Your task to perform on an android device: Empty the shopping cart on ebay.com. Add "usb-c" to the cart on ebay.com Image 0: 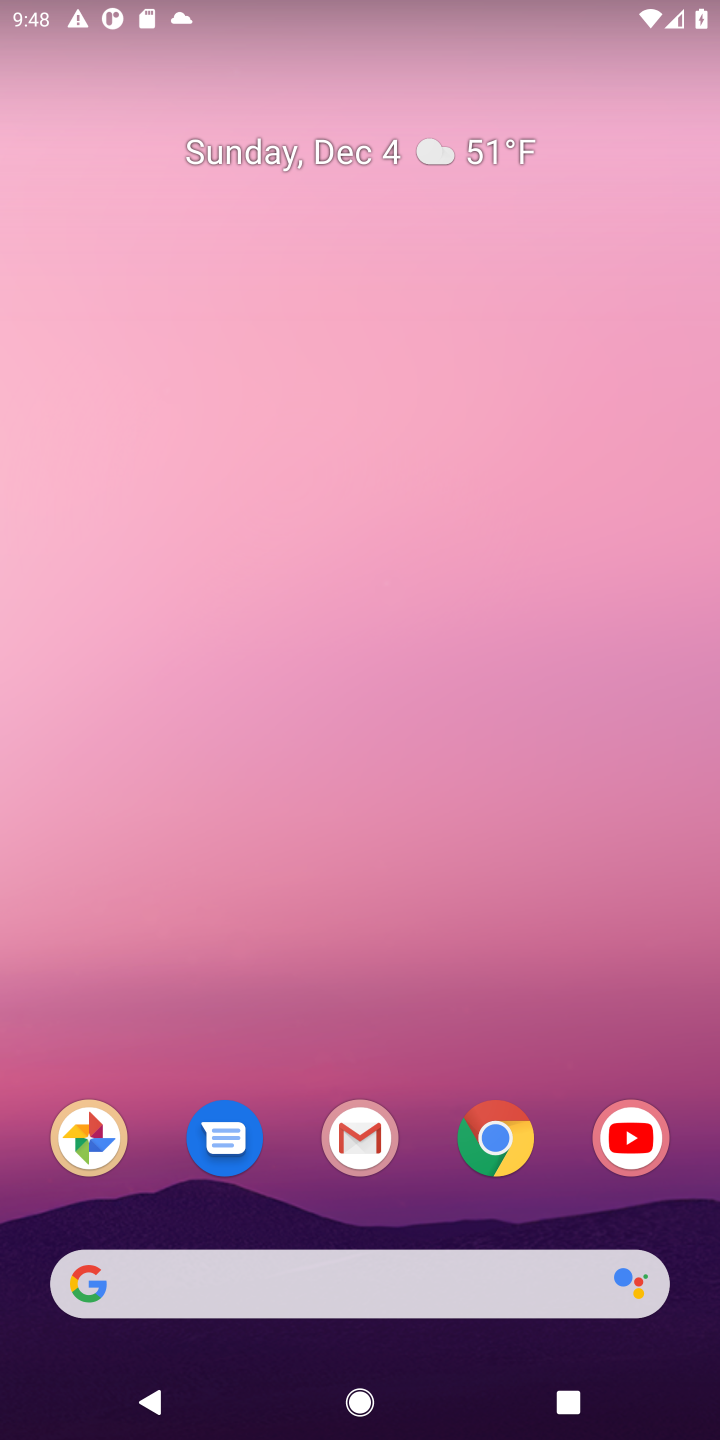
Step 0: click (487, 1143)
Your task to perform on an android device: Empty the shopping cart on ebay.com. Add "usb-c" to the cart on ebay.com Image 1: 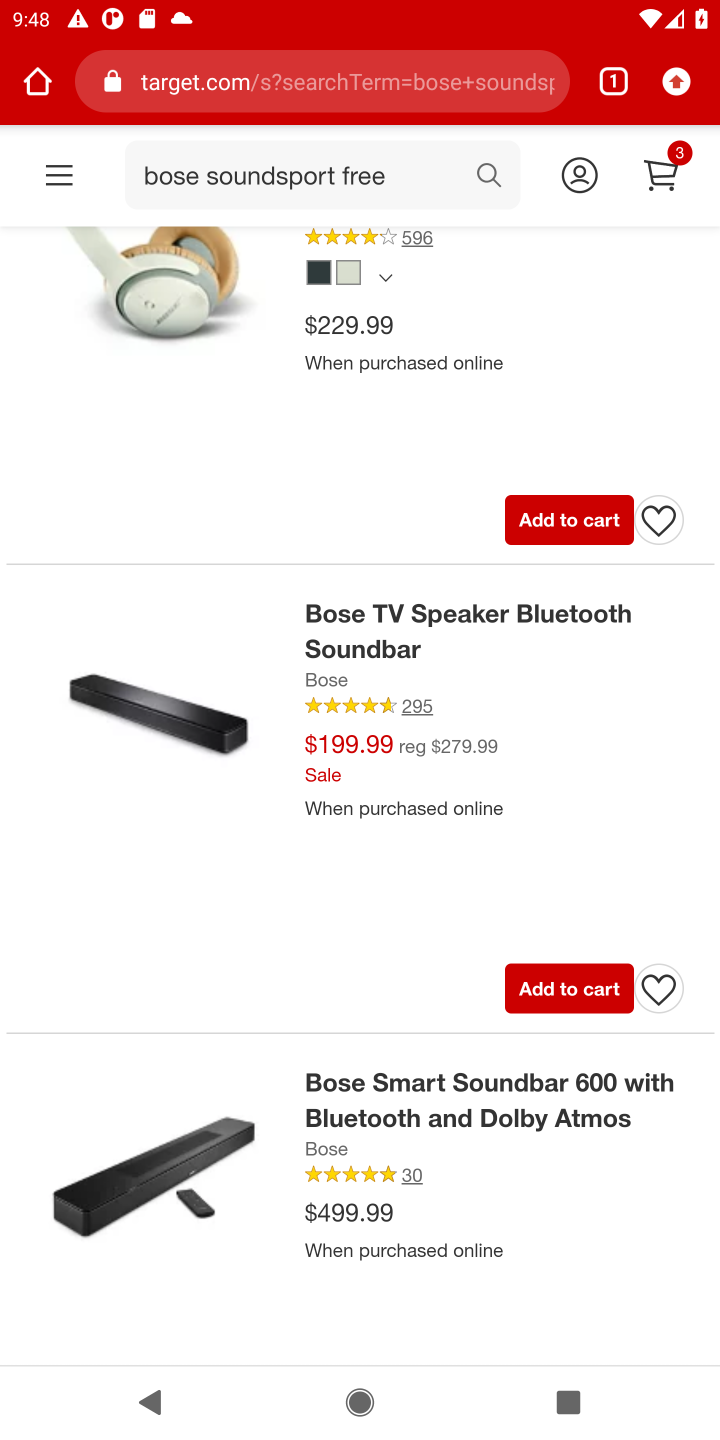
Step 1: click (373, 90)
Your task to perform on an android device: Empty the shopping cart on ebay.com. Add "usb-c" to the cart on ebay.com Image 2: 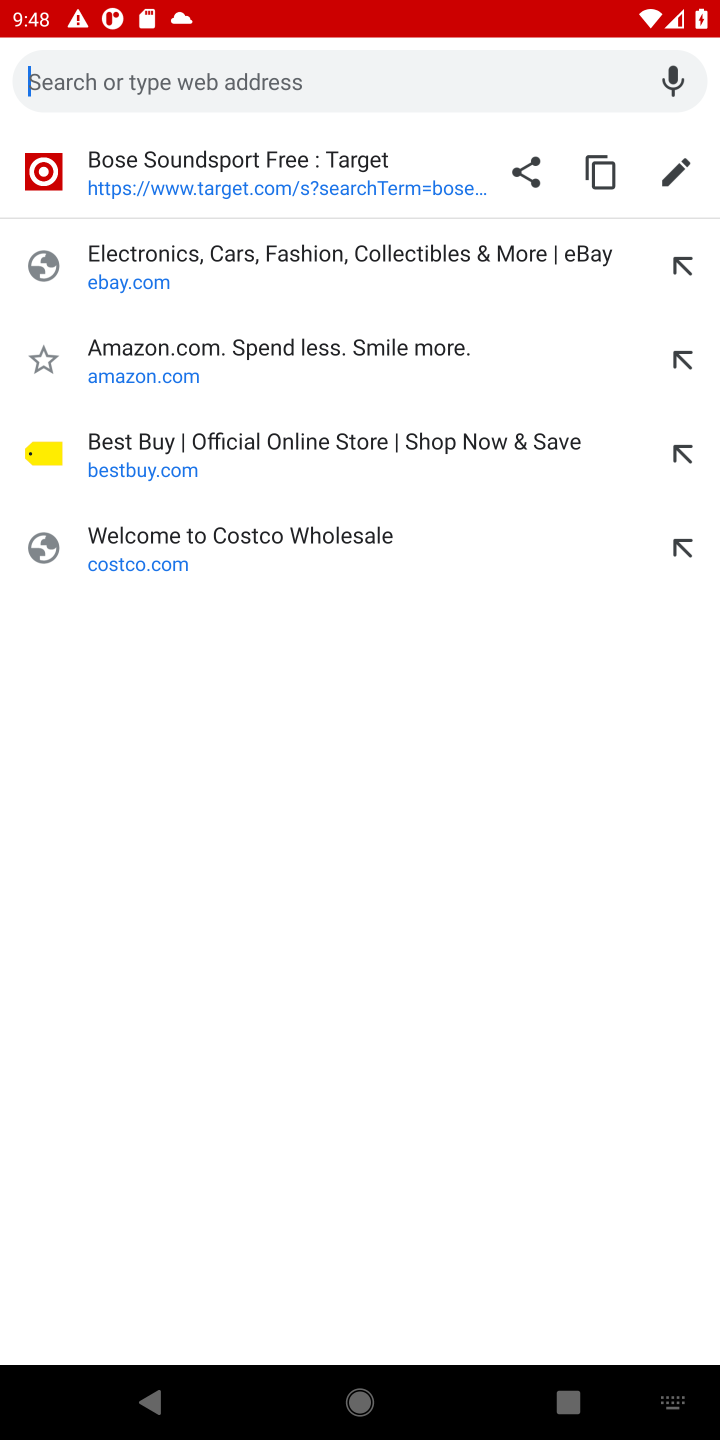
Step 2: press enter
Your task to perform on an android device: Empty the shopping cart on ebay.com. Add "usb-c" to the cart on ebay.com Image 3: 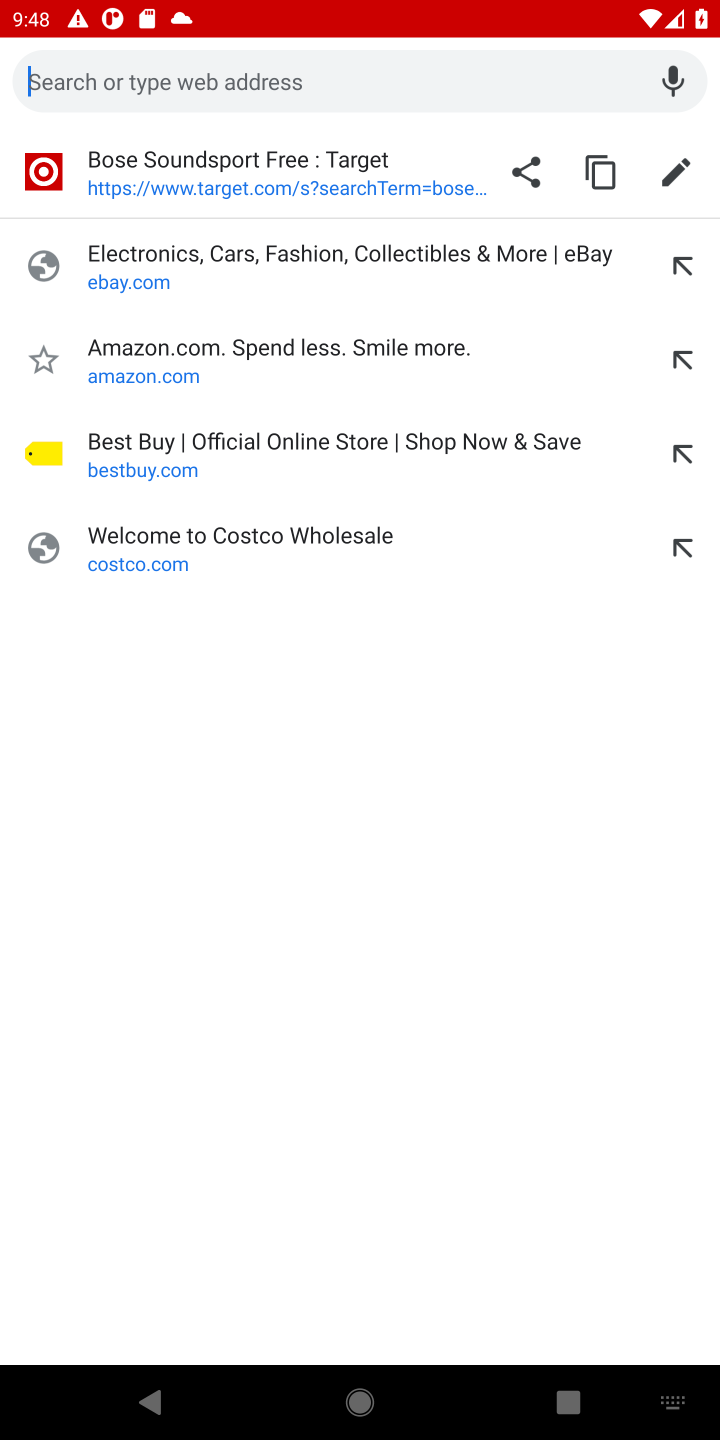
Step 3: type "ebay.com"
Your task to perform on an android device: Empty the shopping cart on ebay.com. Add "usb-c" to the cart on ebay.com Image 4: 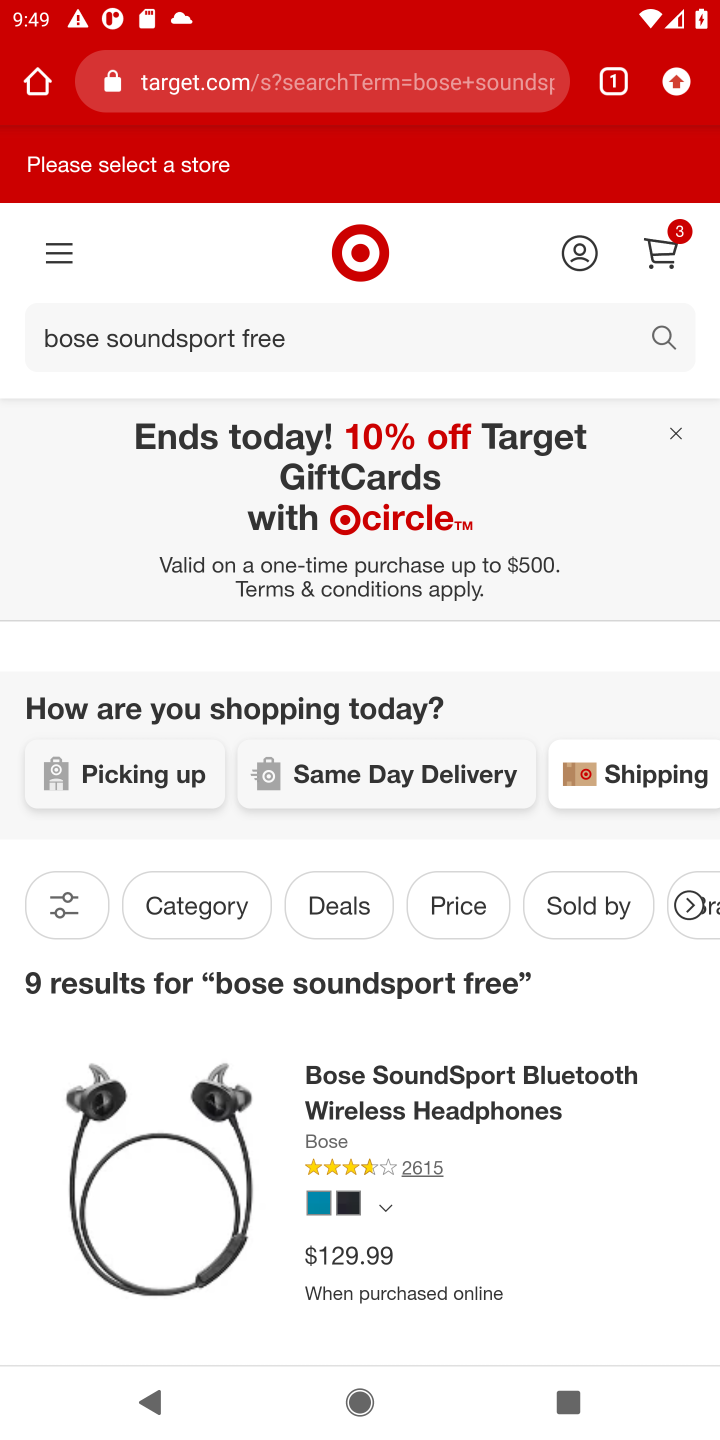
Step 4: click (374, 78)
Your task to perform on an android device: Empty the shopping cart on ebay.com. Add "usb-c" to the cart on ebay.com Image 5: 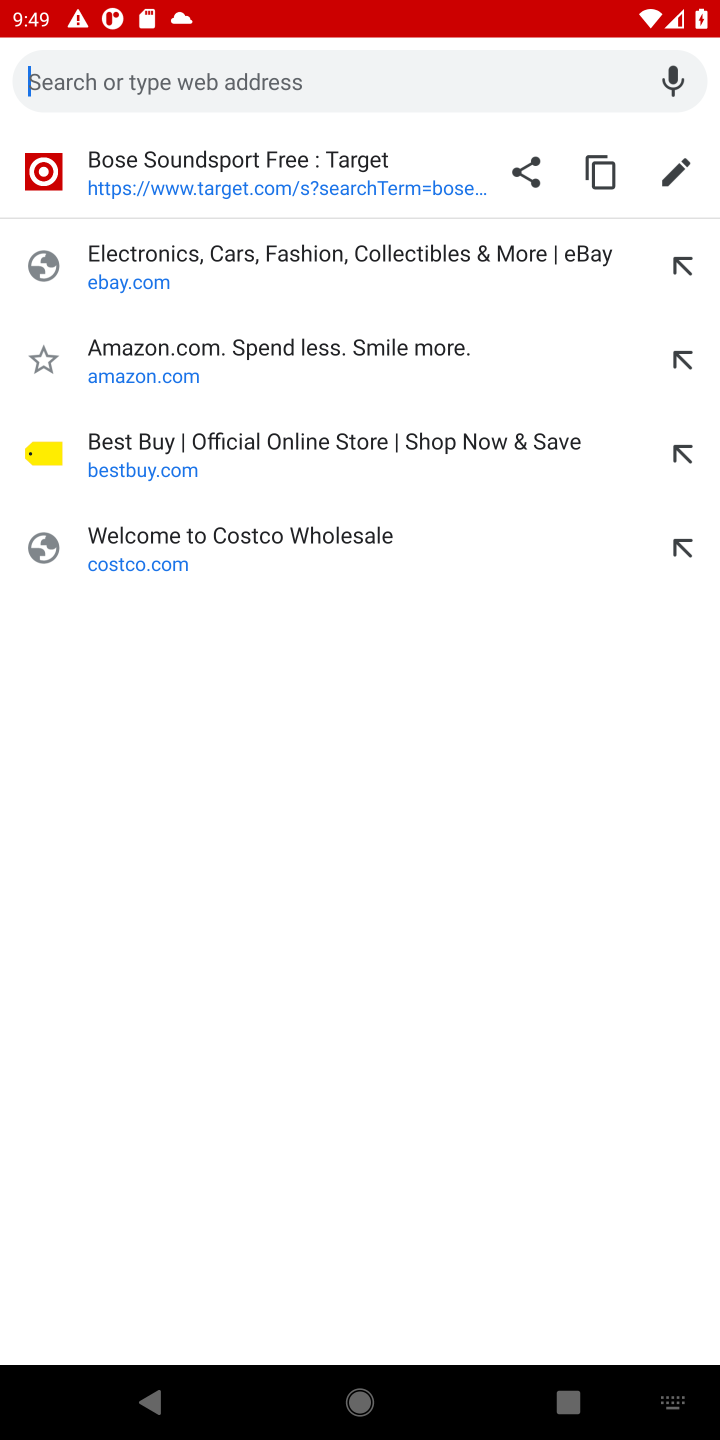
Step 5: click (318, 258)
Your task to perform on an android device: Empty the shopping cart on ebay.com. Add "usb-c" to the cart on ebay.com Image 6: 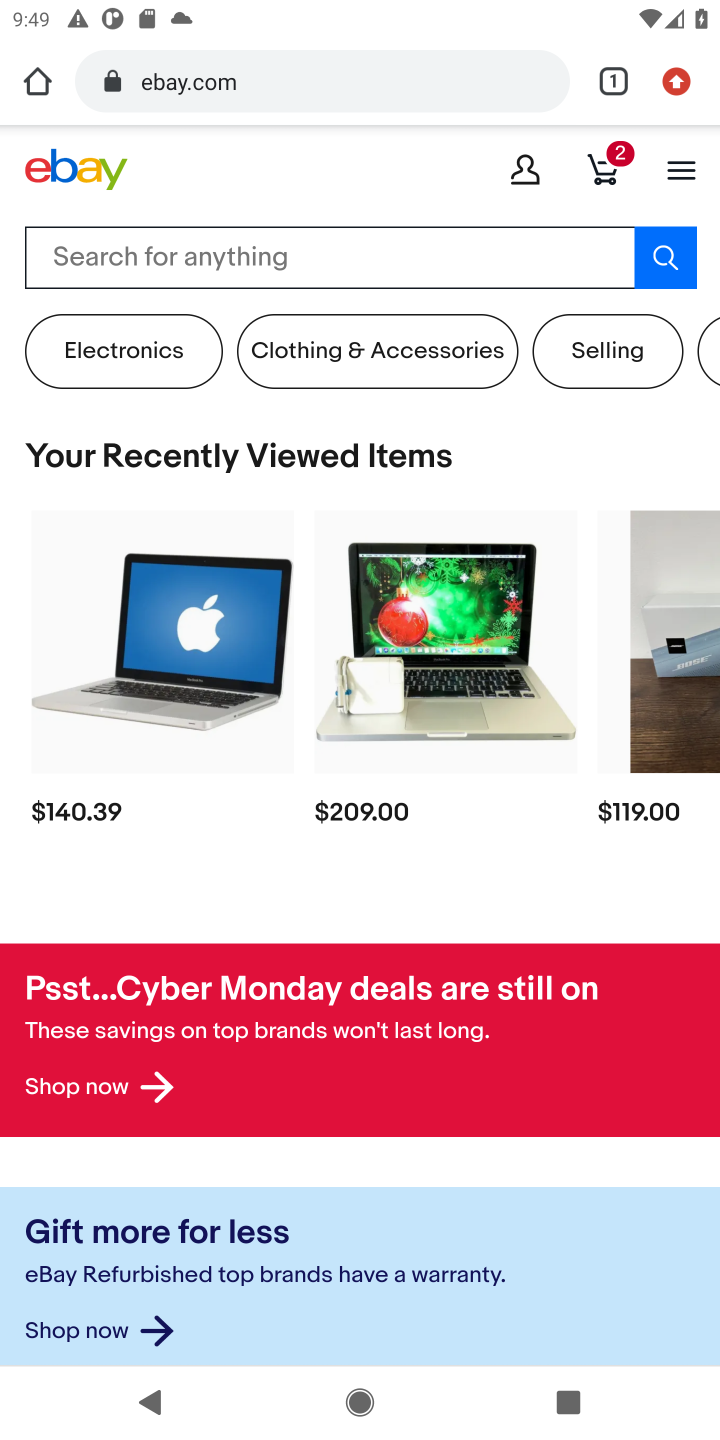
Step 6: click (609, 177)
Your task to perform on an android device: Empty the shopping cart on ebay.com. Add "usb-c" to the cart on ebay.com Image 7: 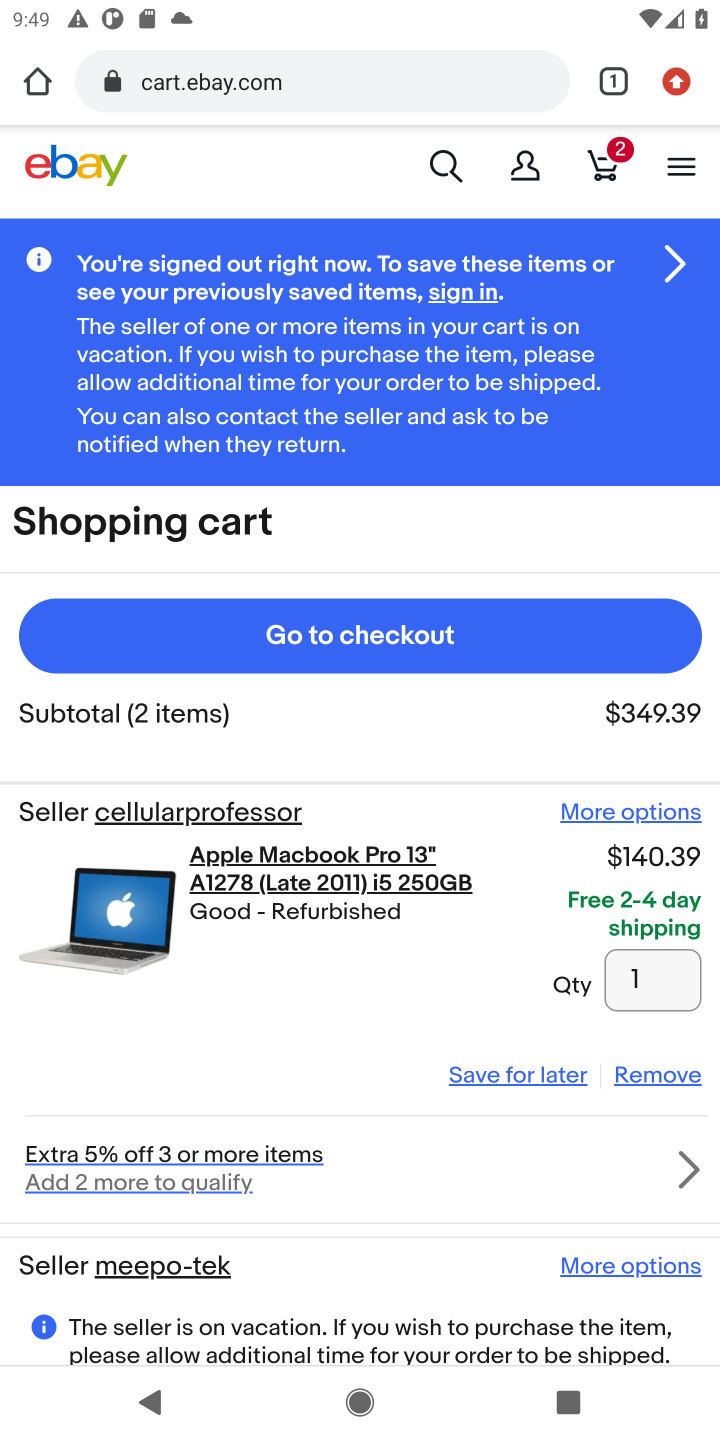
Step 7: click (667, 1078)
Your task to perform on an android device: Empty the shopping cart on ebay.com. Add "usb-c" to the cart on ebay.com Image 8: 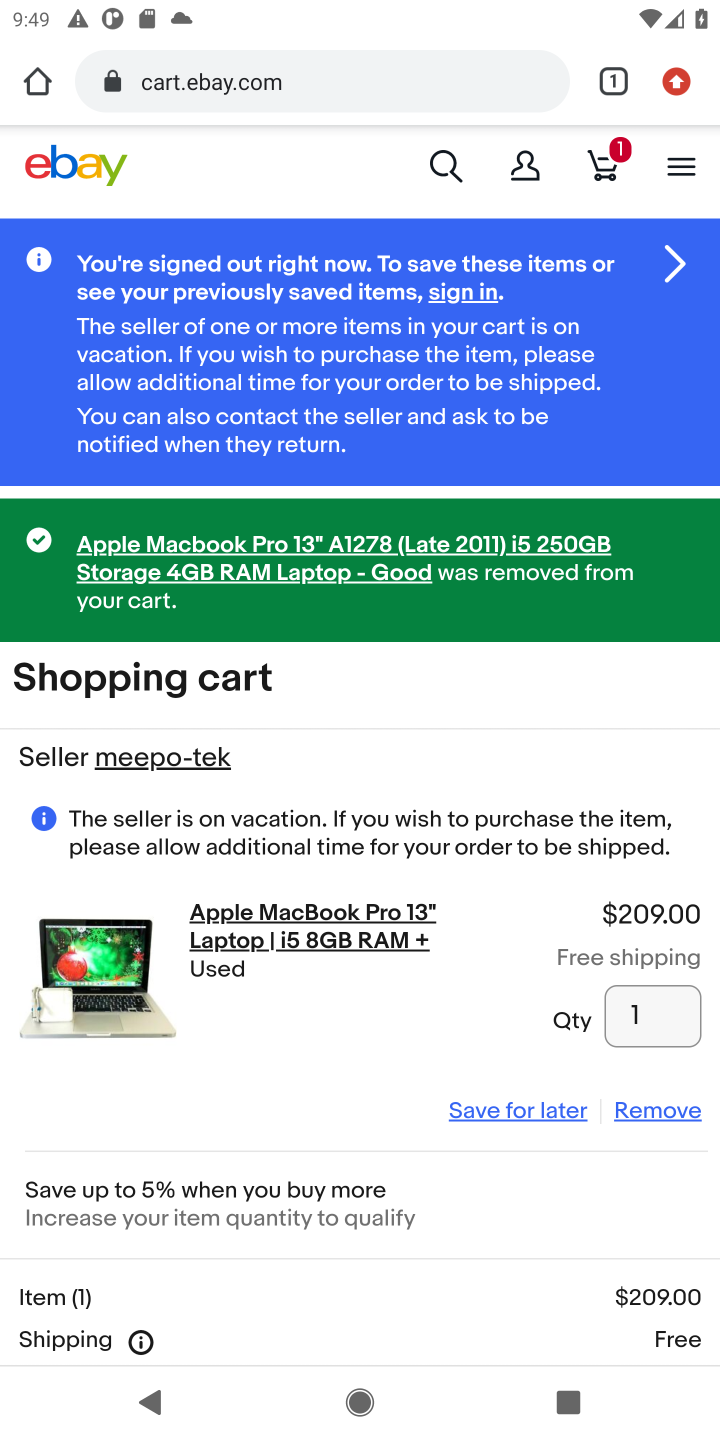
Step 8: click (662, 1119)
Your task to perform on an android device: Empty the shopping cart on ebay.com. Add "usb-c" to the cart on ebay.com Image 9: 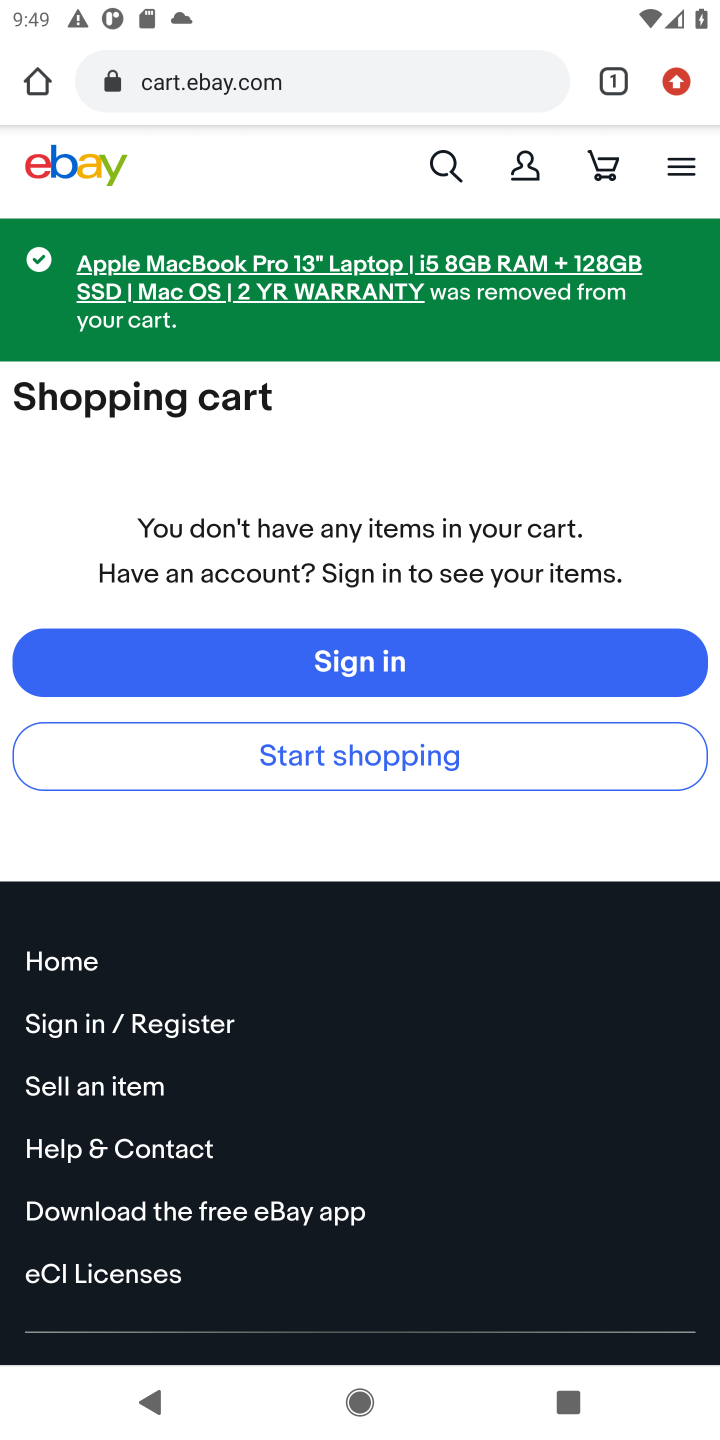
Step 9: click (448, 160)
Your task to perform on an android device: Empty the shopping cart on ebay.com. Add "usb-c" to the cart on ebay.com Image 10: 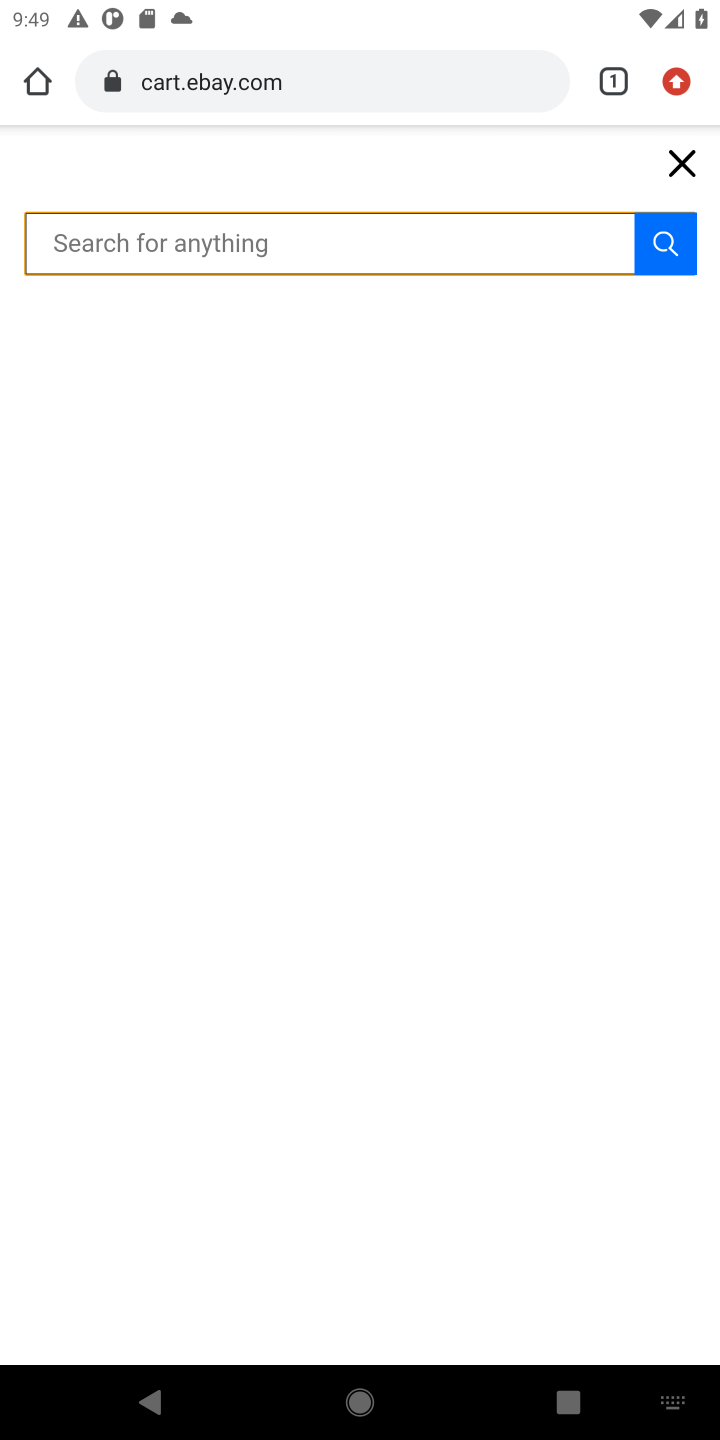
Step 10: type "usb-c"
Your task to perform on an android device: Empty the shopping cart on ebay.com. Add "usb-c" to the cart on ebay.com Image 11: 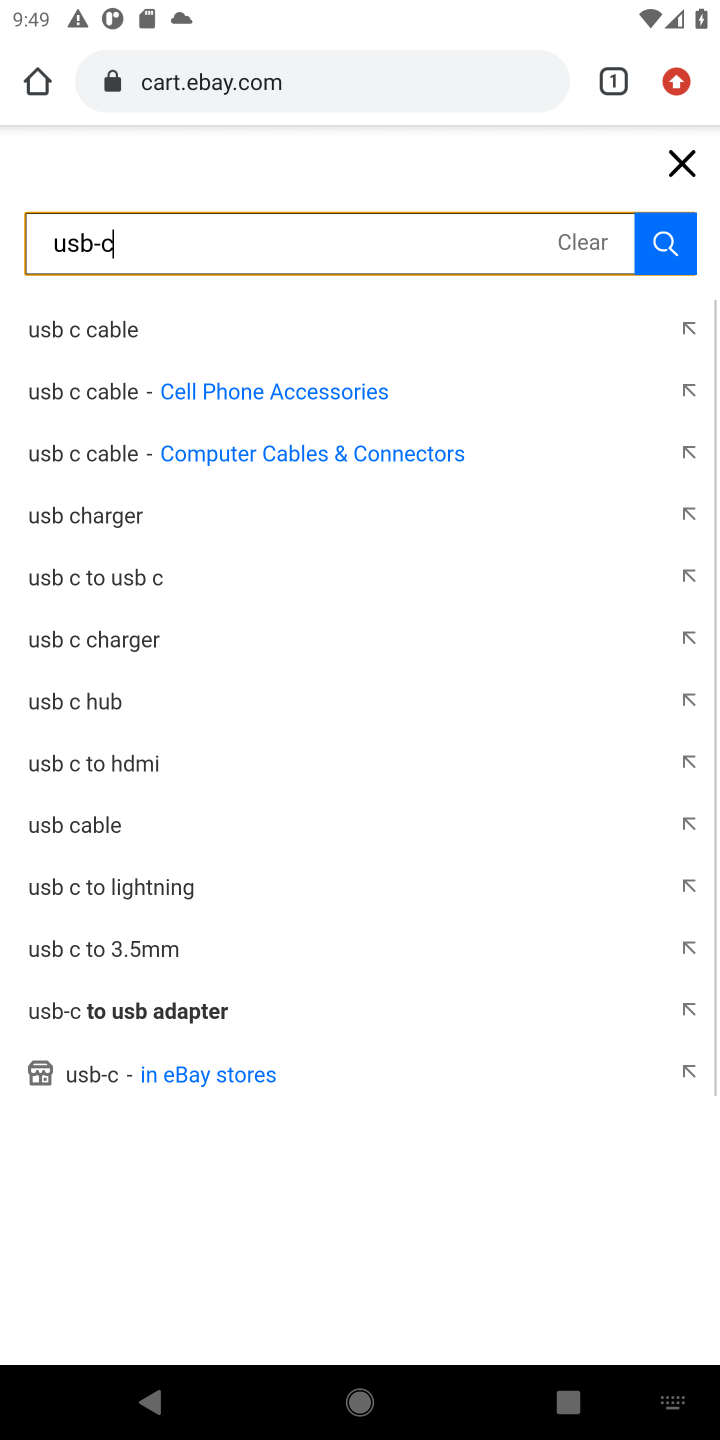
Step 11: press enter
Your task to perform on an android device: Empty the shopping cart on ebay.com. Add "usb-c" to the cart on ebay.com Image 12: 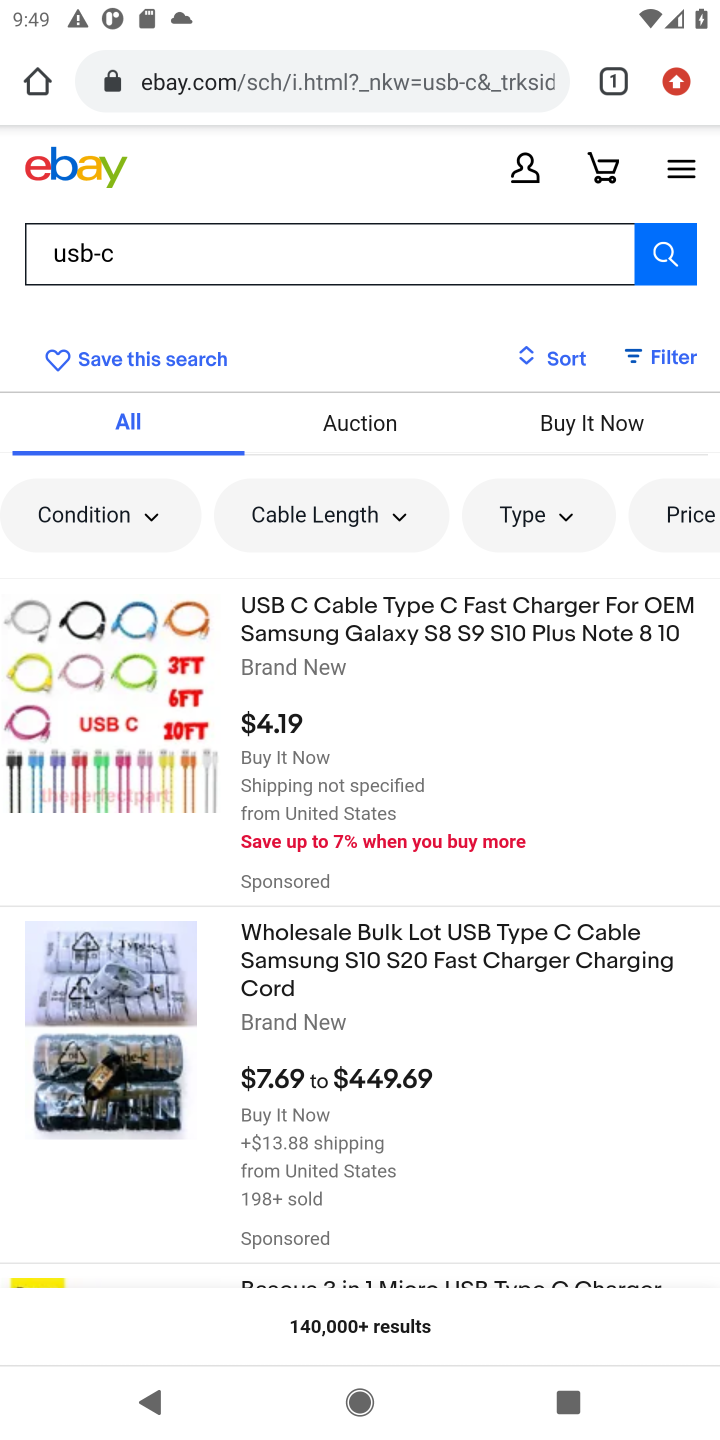
Step 12: click (104, 1015)
Your task to perform on an android device: Empty the shopping cart on ebay.com. Add "usb-c" to the cart on ebay.com Image 13: 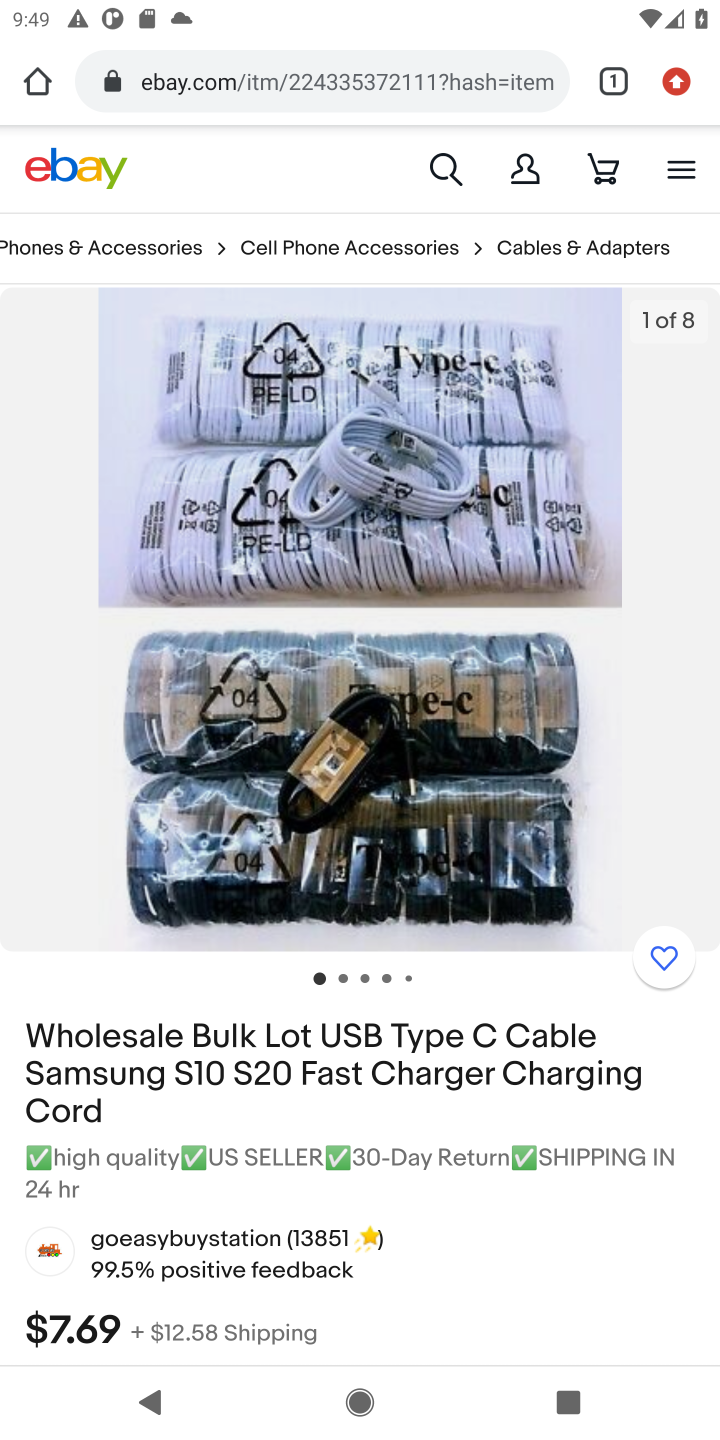
Step 13: drag from (660, 1156) to (646, 220)
Your task to perform on an android device: Empty the shopping cart on ebay.com. Add "usb-c" to the cart on ebay.com Image 14: 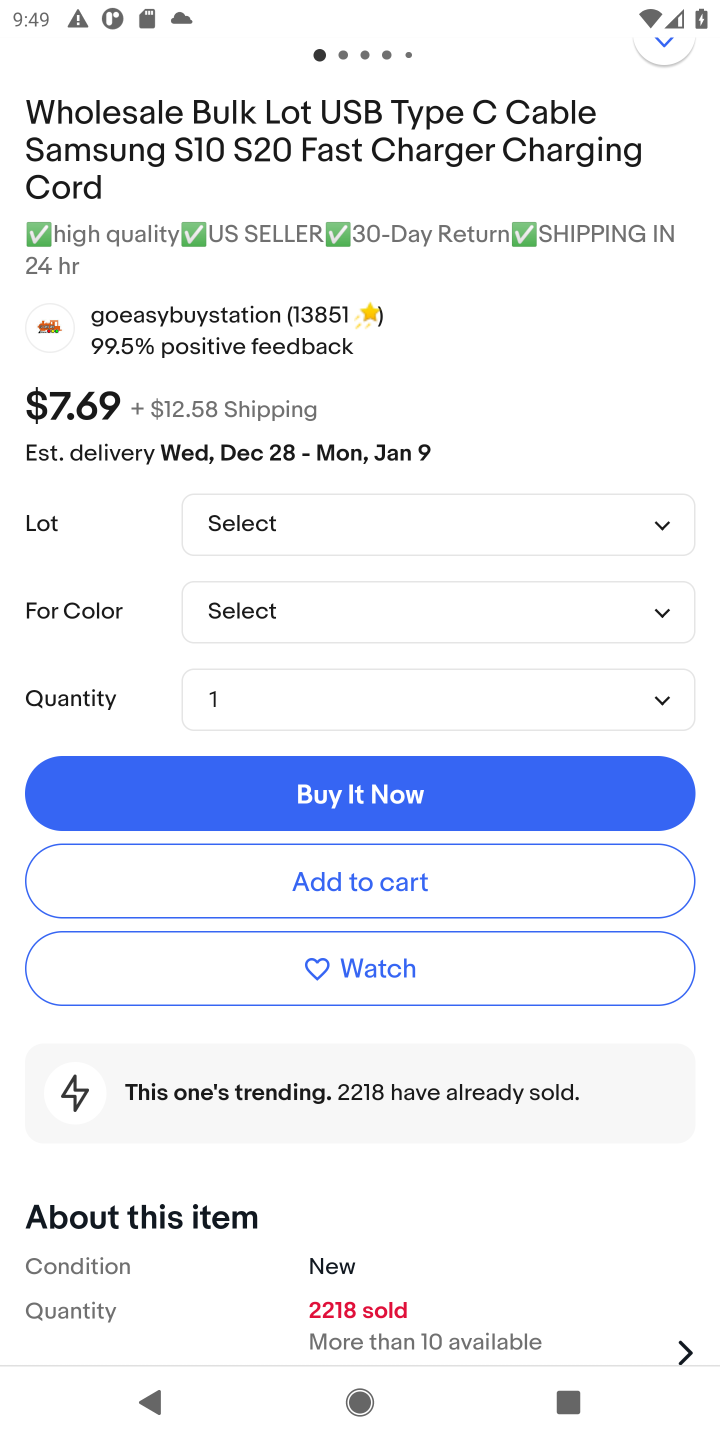
Step 14: click (368, 871)
Your task to perform on an android device: Empty the shopping cart on ebay.com. Add "usb-c" to the cart on ebay.com Image 15: 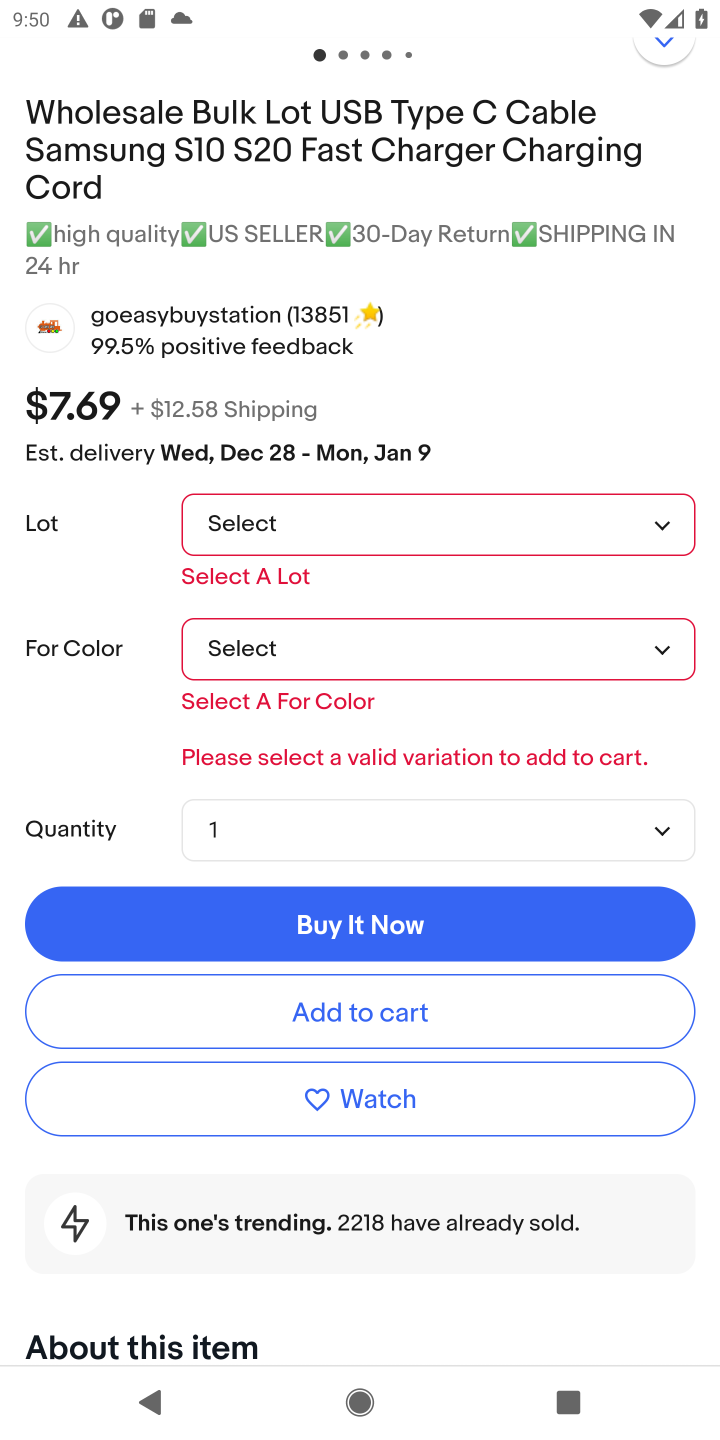
Step 15: press back button
Your task to perform on an android device: Empty the shopping cart on ebay.com. Add "usb-c" to the cart on ebay.com Image 16: 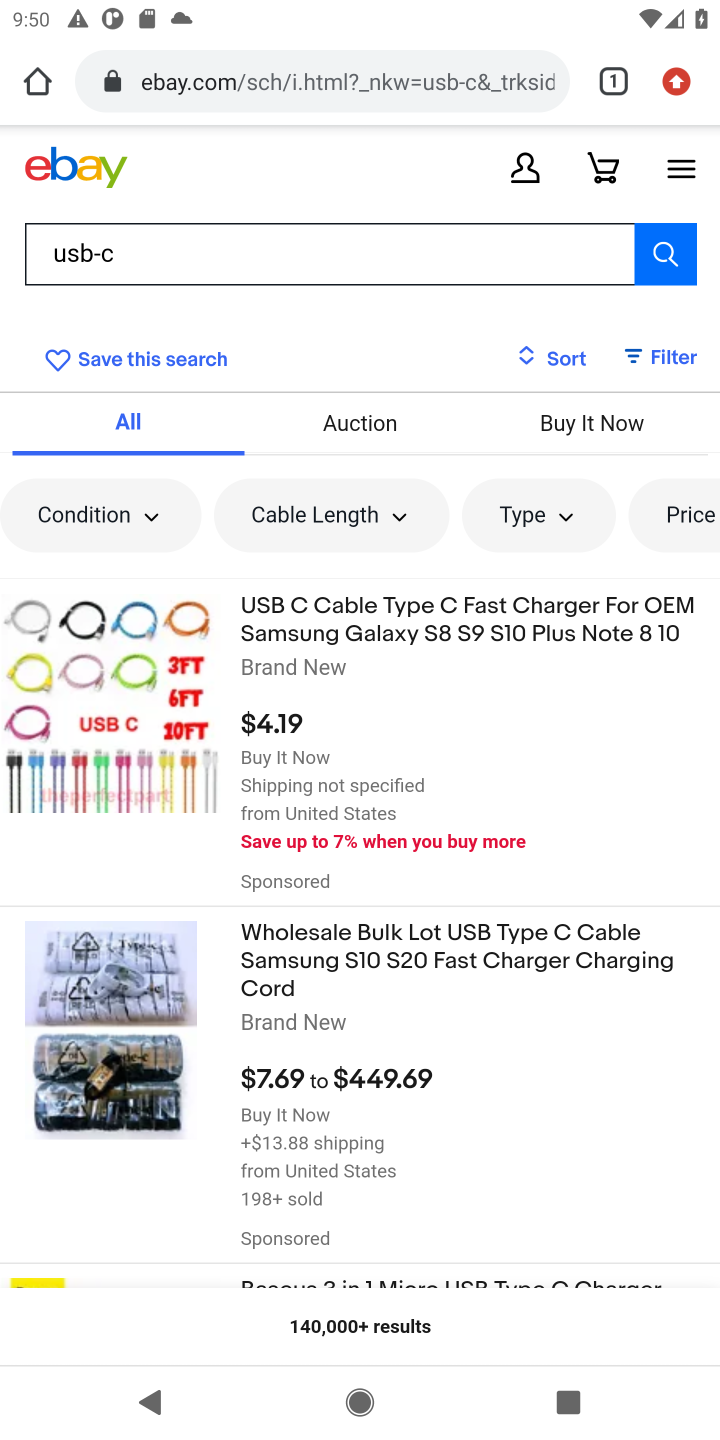
Step 16: drag from (443, 966) to (427, 457)
Your task to perform on an android device: Empty the shopping cart on ebay.com. Add "usb-c" to the cart on ebay.com Image 17: 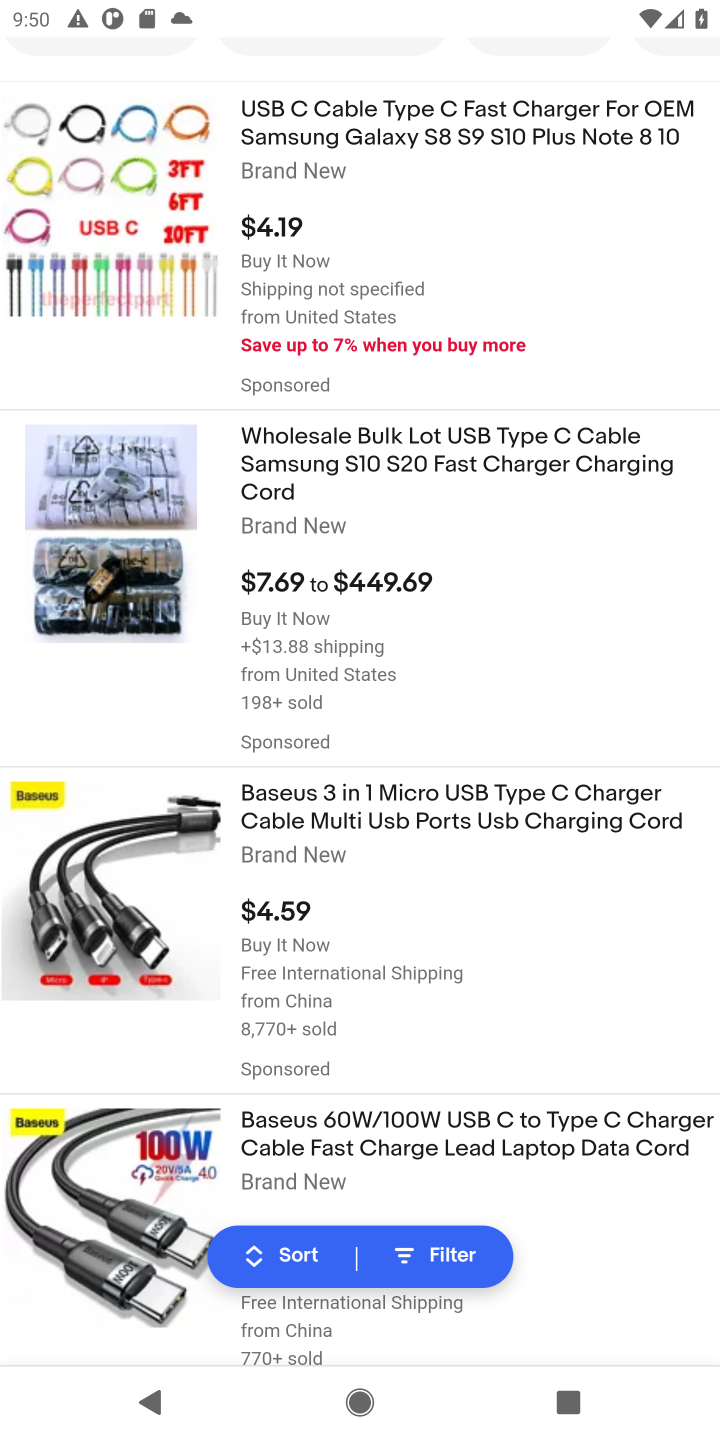
Step 17: click (85, 881)
Your task to perform on an android device: Empty the shopping cart on ebay.com. Add "usb-c" to the cart on ebay.com Image 18: 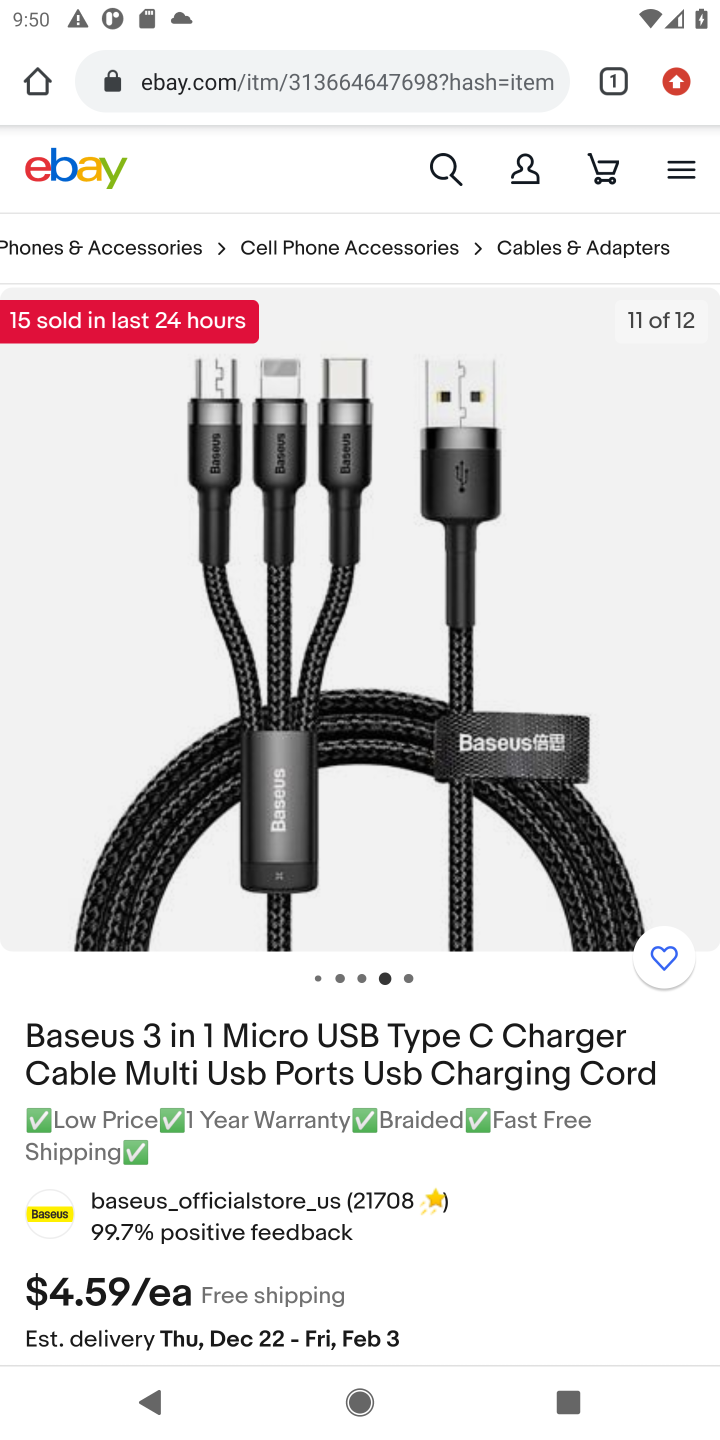
Step 18: drag from (548, 1226) to (506, 733)
Your task to perform on an android device: Empty the shopping cart on ebay.com. Add "usb-c" to the cart on ebay.com Image 19: 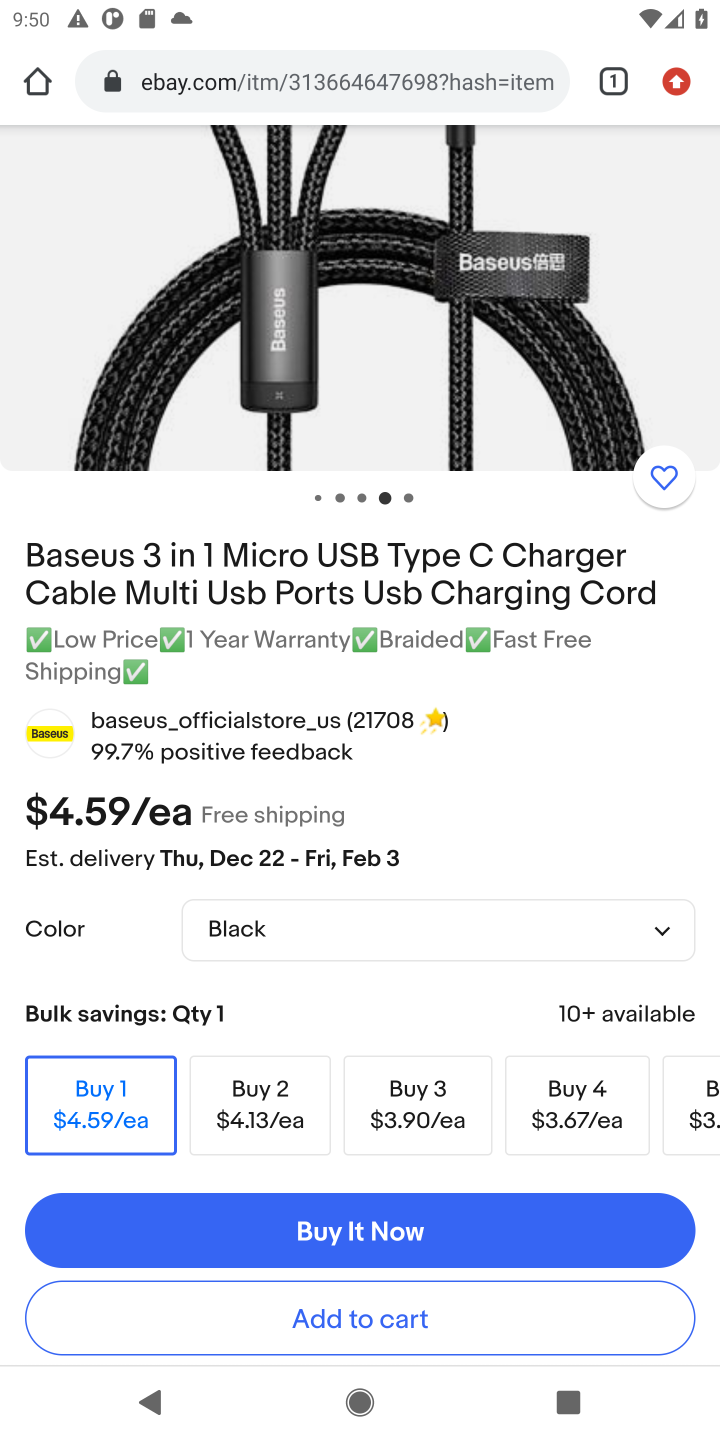
Step 19: click (444, 1296)
Your task to perform on an android device: Empty the shopping cart on ebay.com. Add "usb-c" to the cart on ebay.com Image 20: 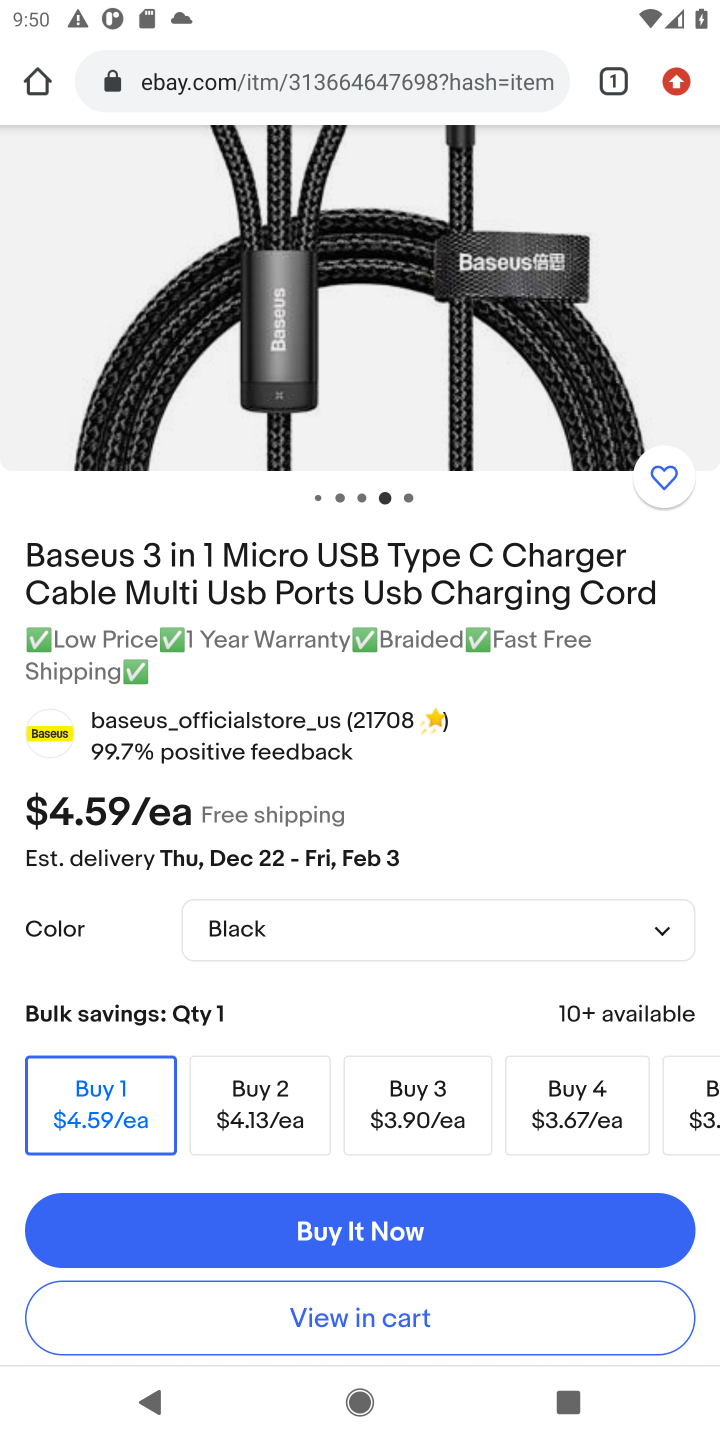
Step 20: click (360, 1313)
Your task to perform on an android device: Empty the shopping cart on ebay.com. Add "usb-c" to the cart on ebay.com Image 21: 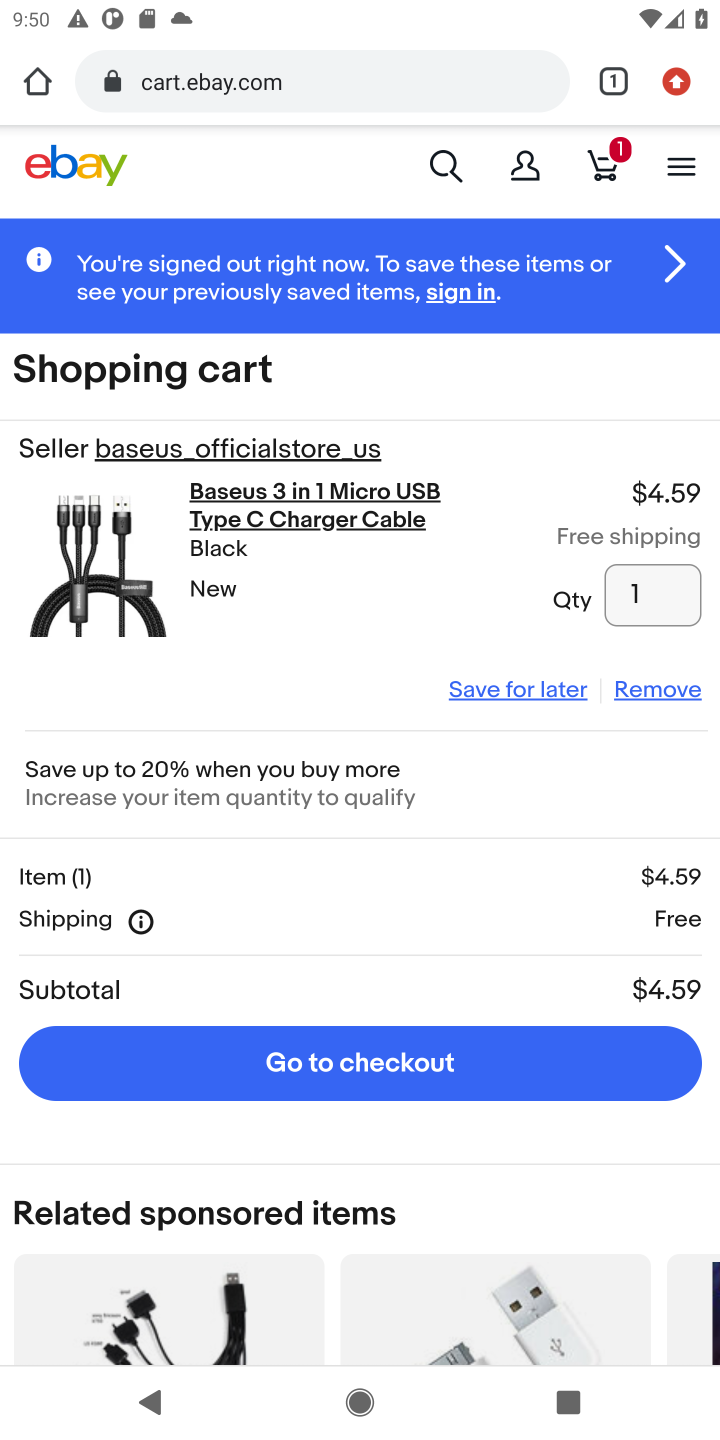
Step 21: task complete